Your task to perform on an android device: turn on javascript in the chrome app Image 0: 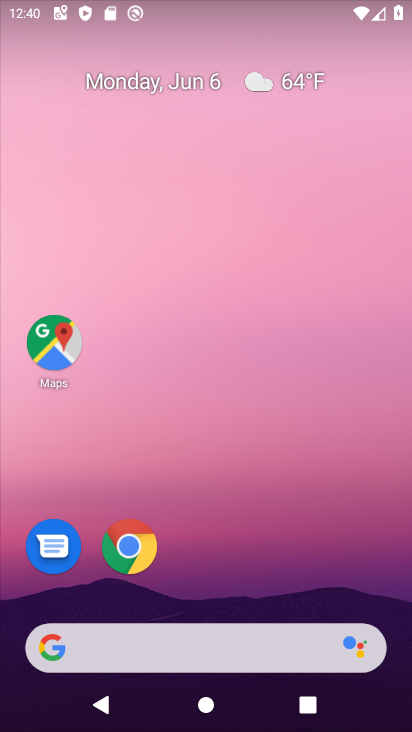
Step 0: click (130, 551)
Your task to perform on an android device: turn on javascript in the chrome app Image 1: 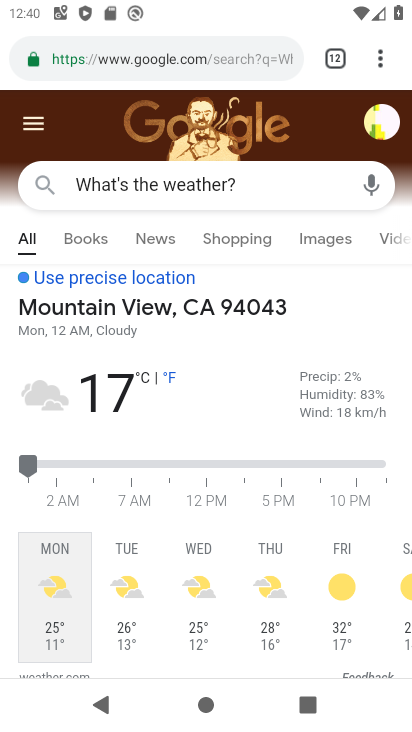
Step 1: click (371, 54)
Your task to perform on an android device: turn on javascript in the chrome app Image 2: 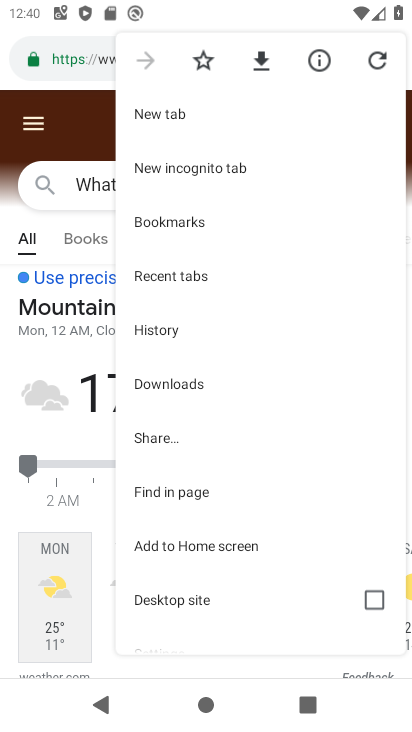
Step 2: drag from (254, 579) to (293, 345)
Your task to perform on an android device: turn on javascript in the chrome app Image 3: 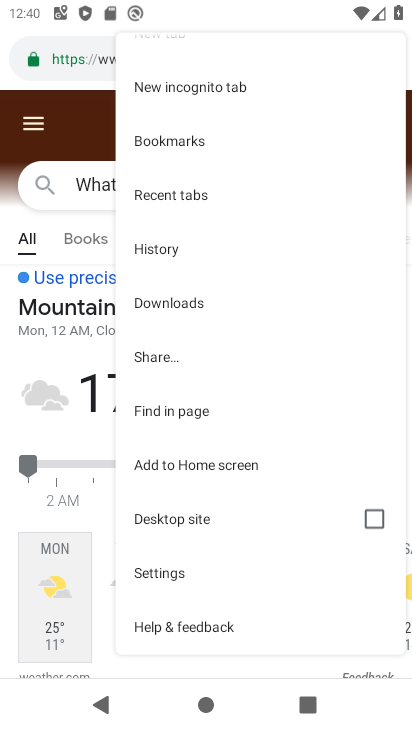
Step 3: click (196, 565)
Your task to perform on an android device: turn on javascript in the chrome app Image 4: 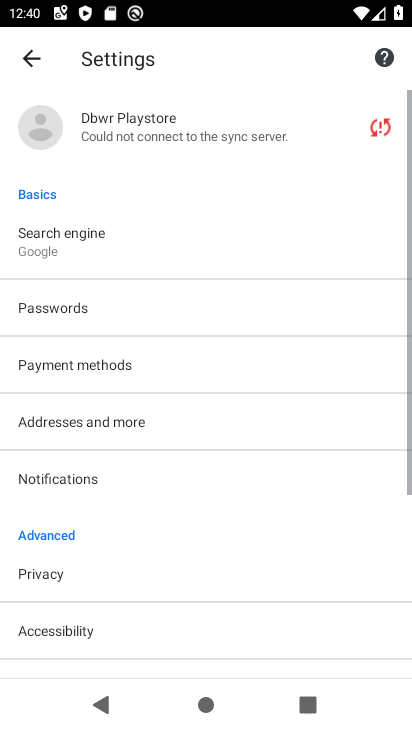
Step 4: drag from (128, 515) to (173, 260)
Your task to perform on an android device: turn on javascript in the chrome app Image 5: 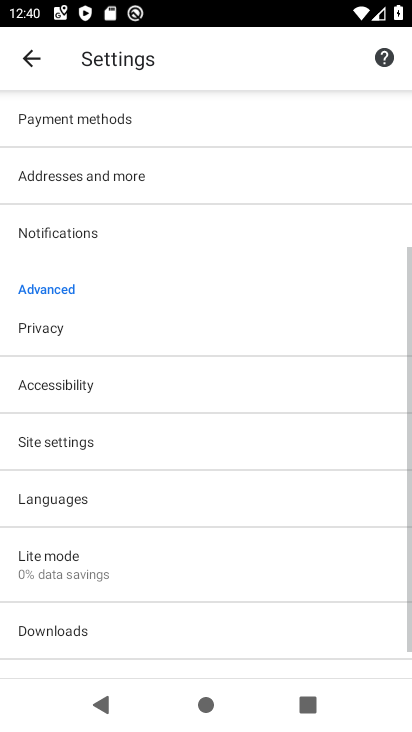
Step 5: click (77, 445)
Your task to perform on an android device: turn on javascript in the chrome app Image 6: 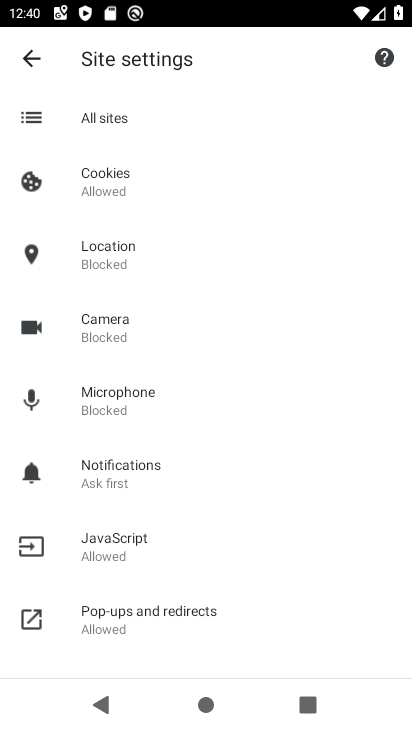
Step 6: click (127, 546)
Your task to perform on an android device: turn on javascript in the chrome app Image 7: 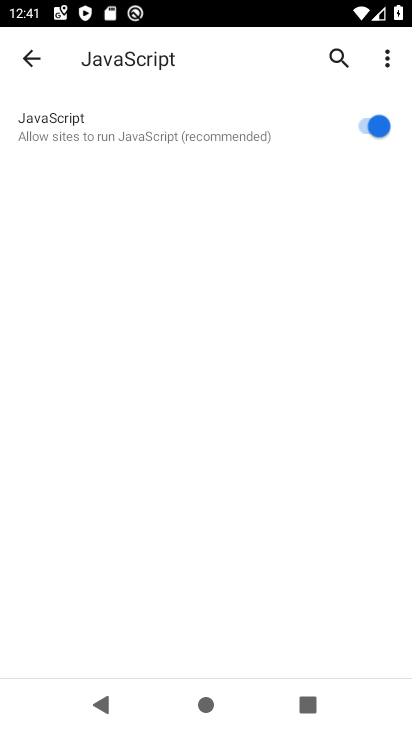
Step 7: task complete